Your task to perform on an android device: install app "Nova Launcher" Image 0: 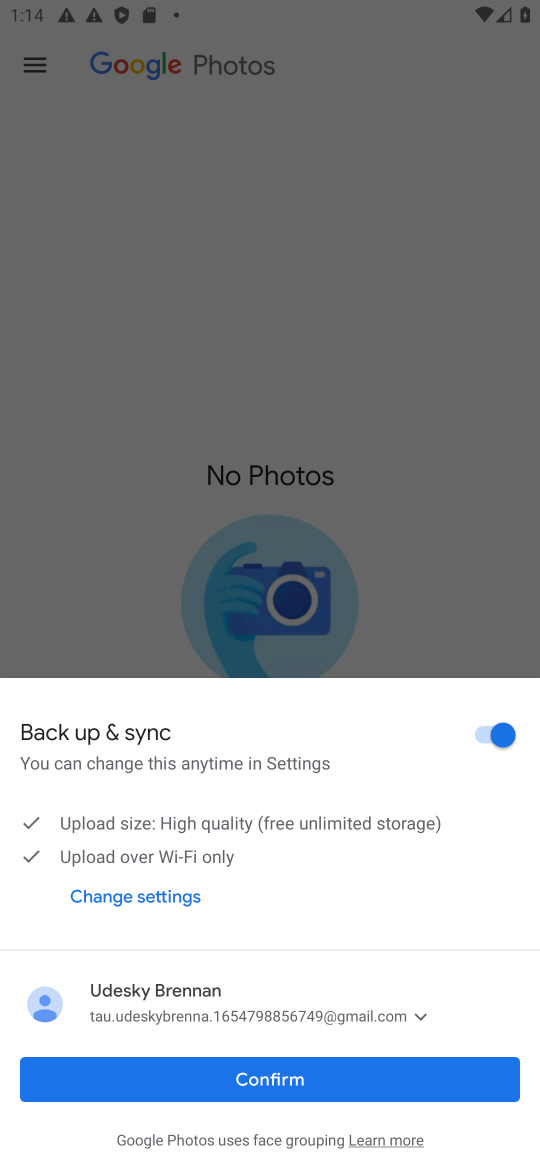
Step 0: press home button
Your task to perform on an android device: install app "Nova Launcher" Image 1: 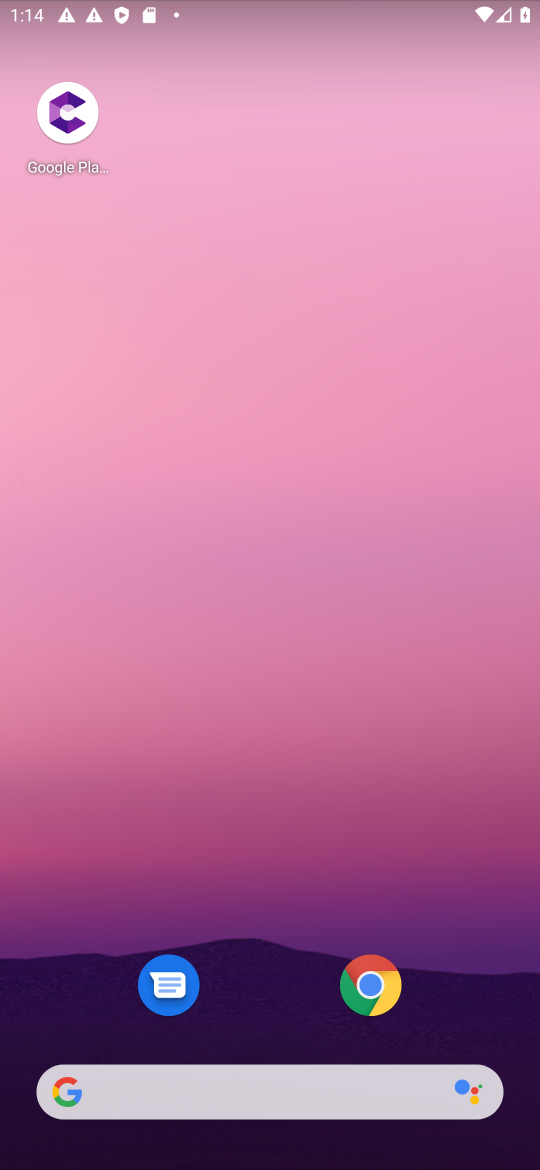
Step 1: click (212, 598)
Your task to perform on an android device: install app "Nova Launcher" Image 2: 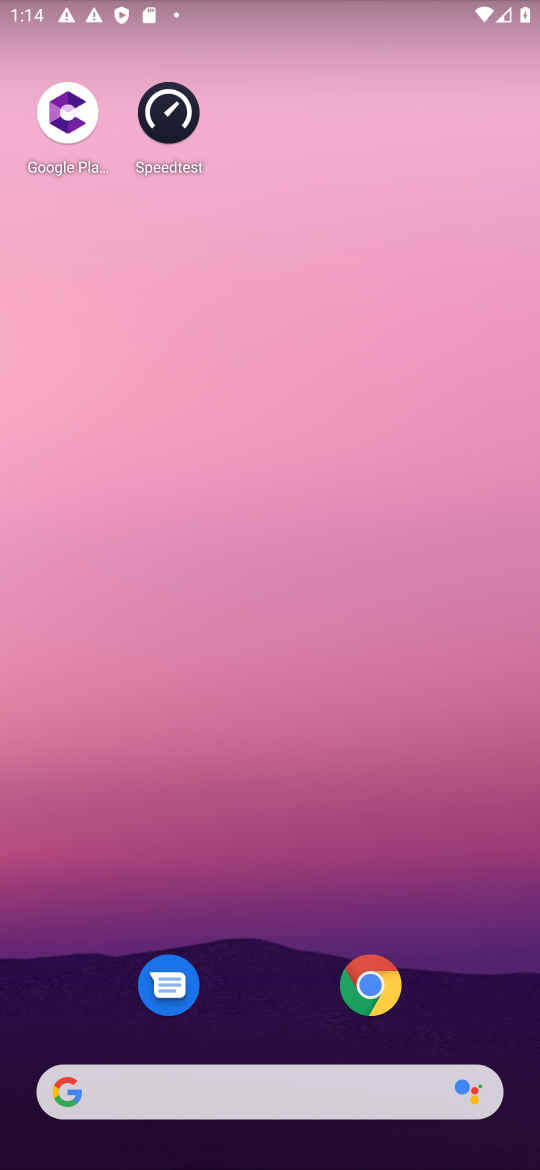
Step 2: drag from (269, 1155) to (238, 89)
Your task to perform on an android device: install app "Nova Launcher" Image 3: 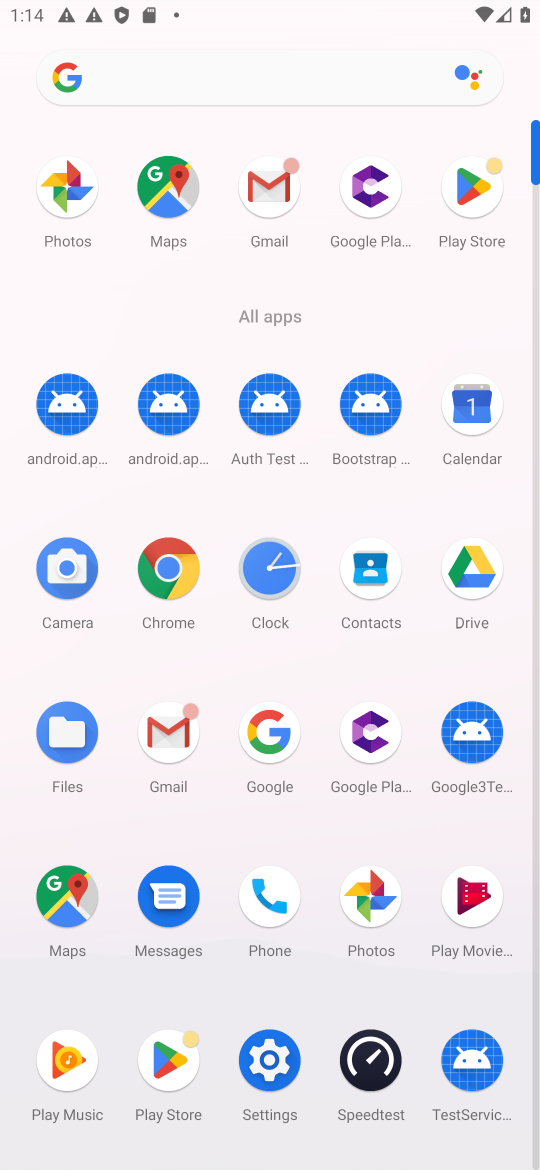
Step 3: click (468, 187)
Your task to perform on an android device: install app "Nova Launcher" Image 4: 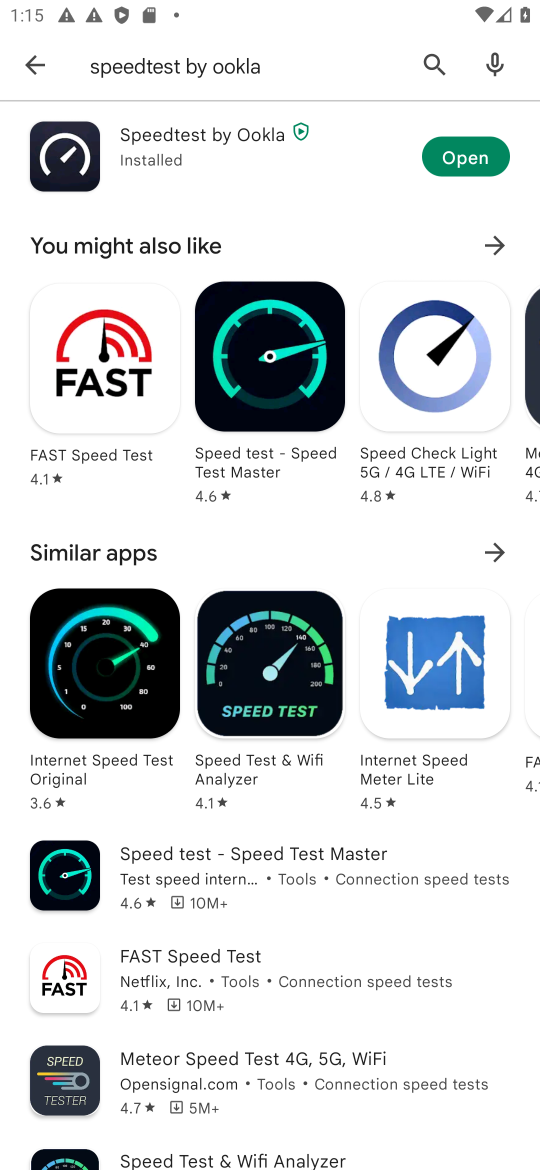
Step 4: click (434, 73)
Your task to perform on an android device: install app "Nova Launcher" Image 5: 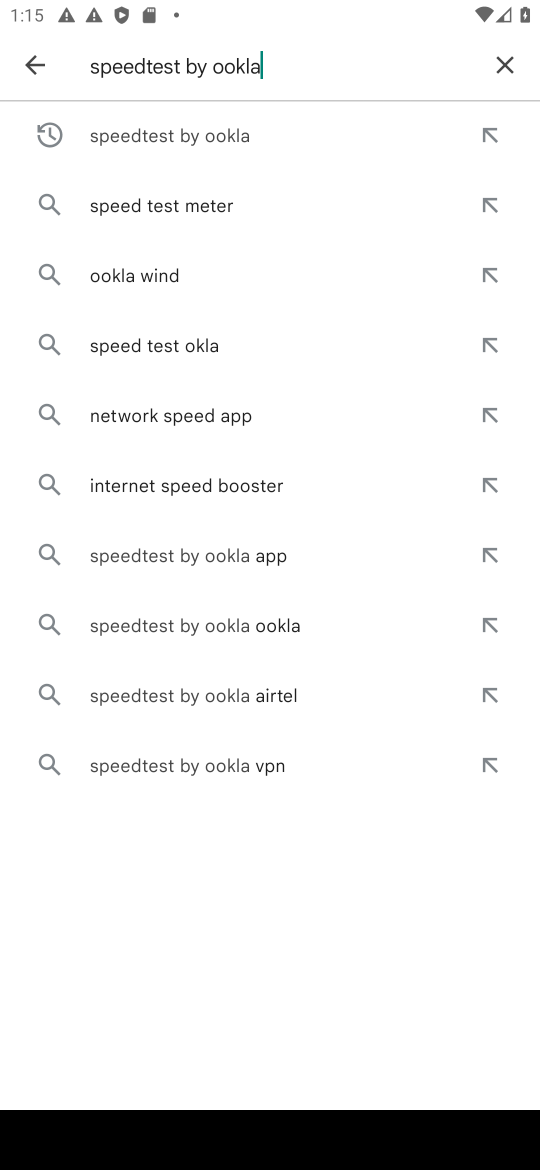
Step 5: click (504, 54)
Your task to perform on an android device: install app "Nova Launcher" Image 6: 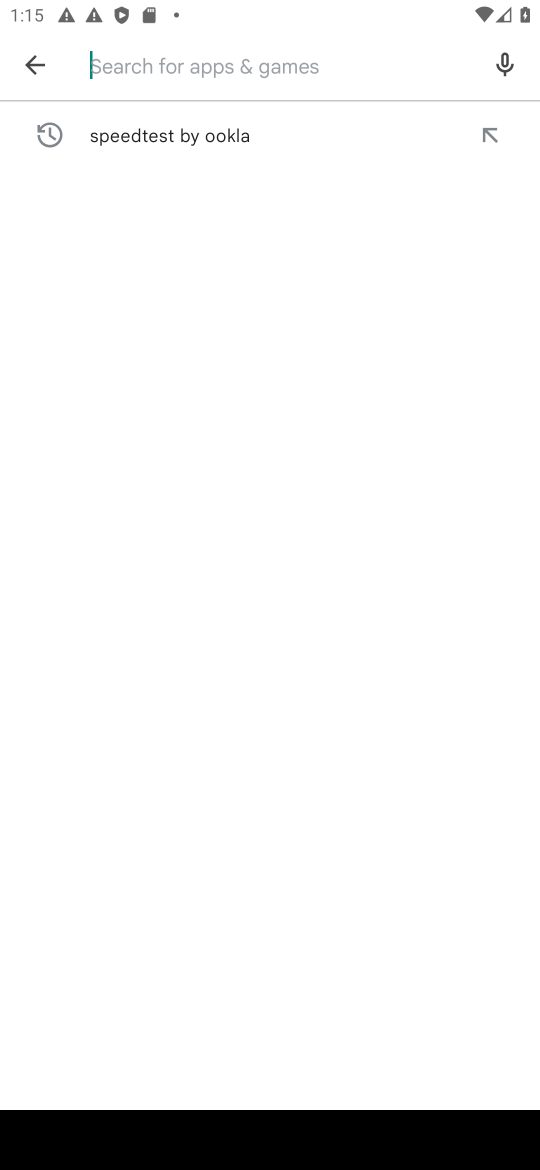
Step 6: type "Nova Launcher"
Your task to perform on an android device: install app "Nova Launcher" Image 7: 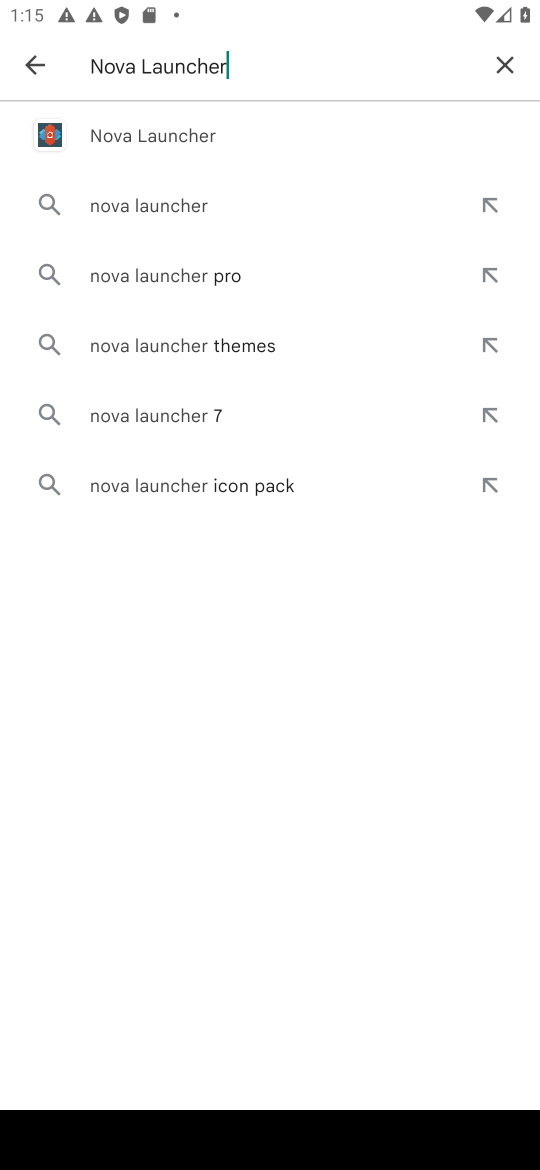
Step 7: click (135, 139)
Your task to perform on an android device: install app "Nova Launcher" Image 8: 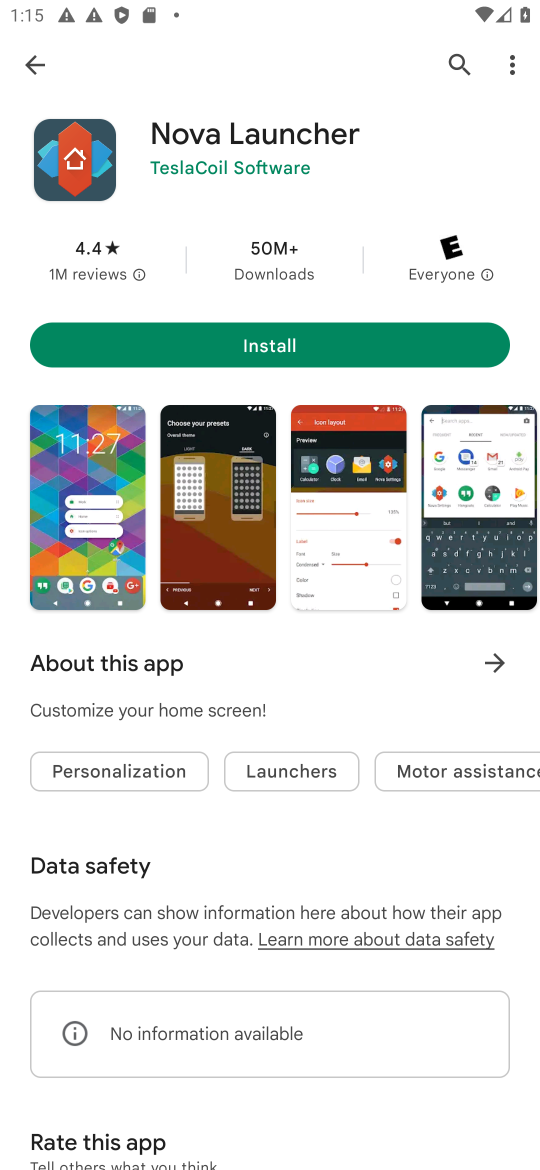
Step 8: click (228, 343)
Your task to perform on an android device: install app "Nova Launcher" Image 9: 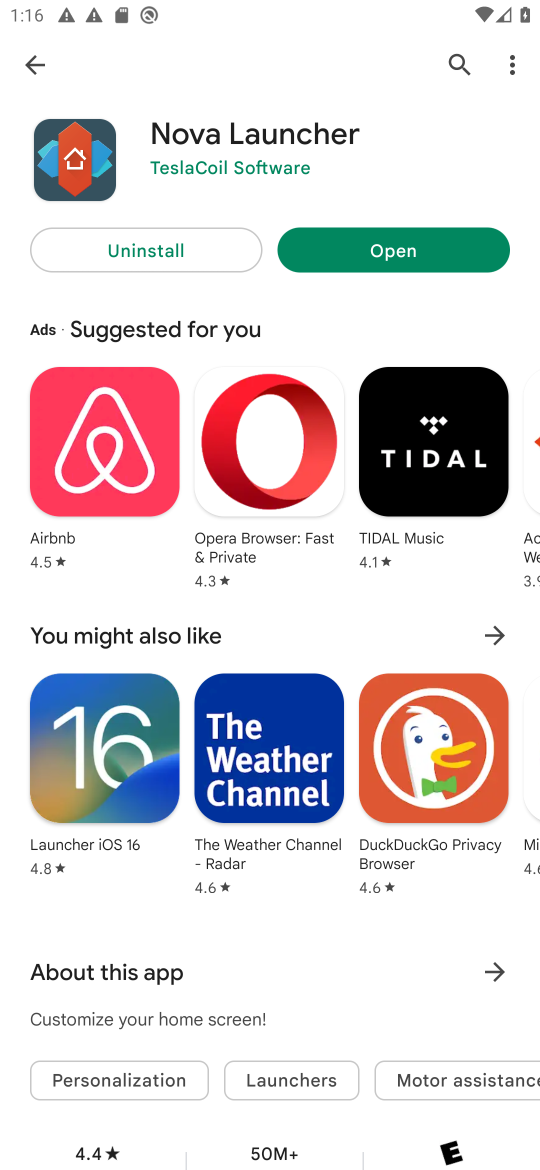
Step 9: task complete